Your task to perform on an android device: open app "Airtel Thanks" (install if not already installed) Image 0: 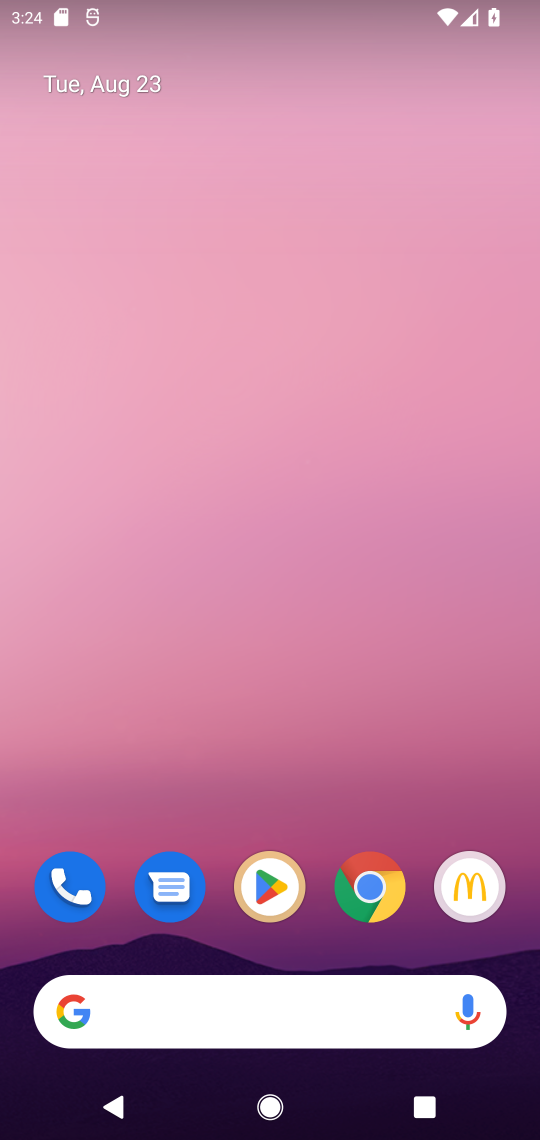
Step 0: click (268, 869)
Your task to perform on an android device: open app "Airtel Thanks" (install if not already installed) Image 1: 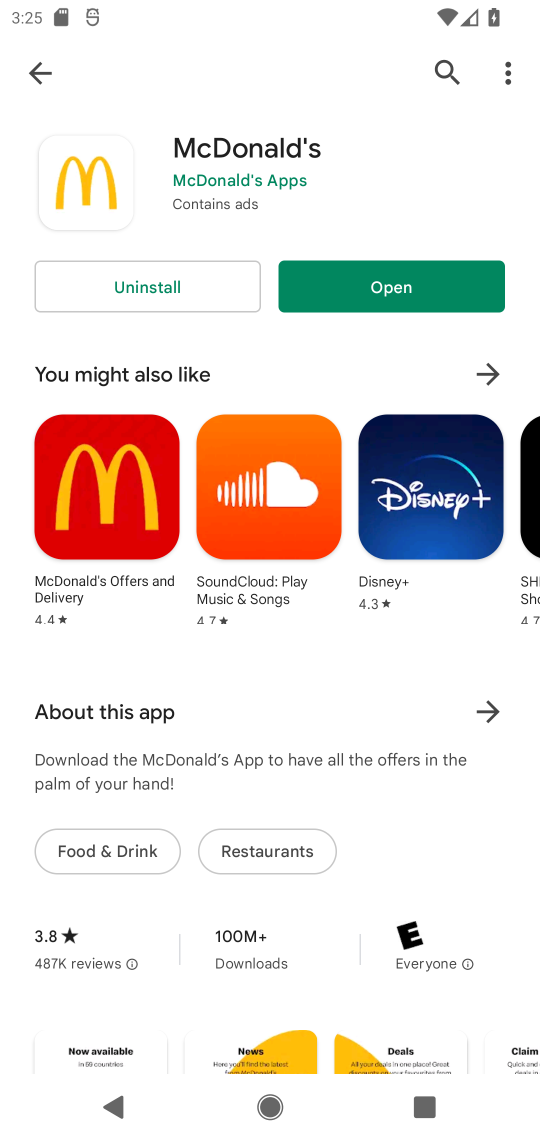
Step 1: click (38, 74)
Your task to perform on an android device: open app "Airtel Thanks" (install if not already installed) Image 2: 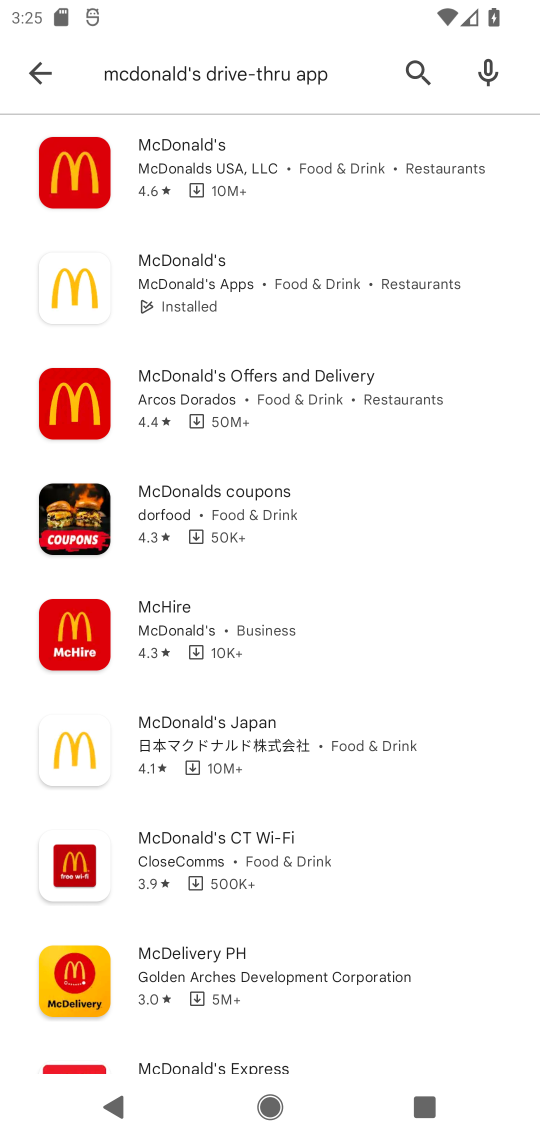
Step 2: click (40, 74)
Your task to perform on an android device: open app "Airtel Thanks" (install if not already installed) Image 3: 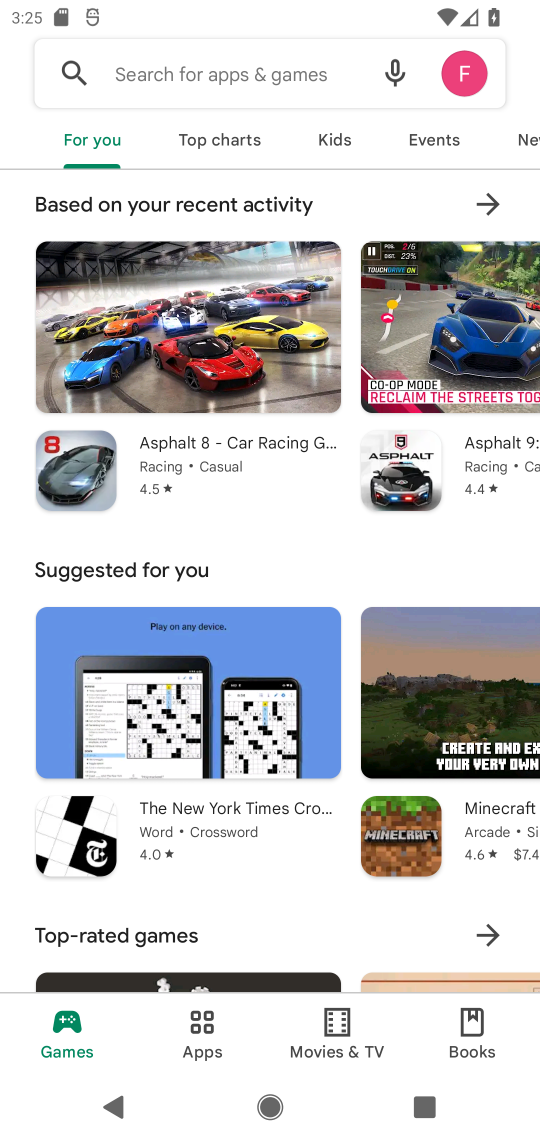
Step 3: click (195, 74)
Your task to perform on an android device: open app "Airtel Thanks" (install if not already installed) Image 4: 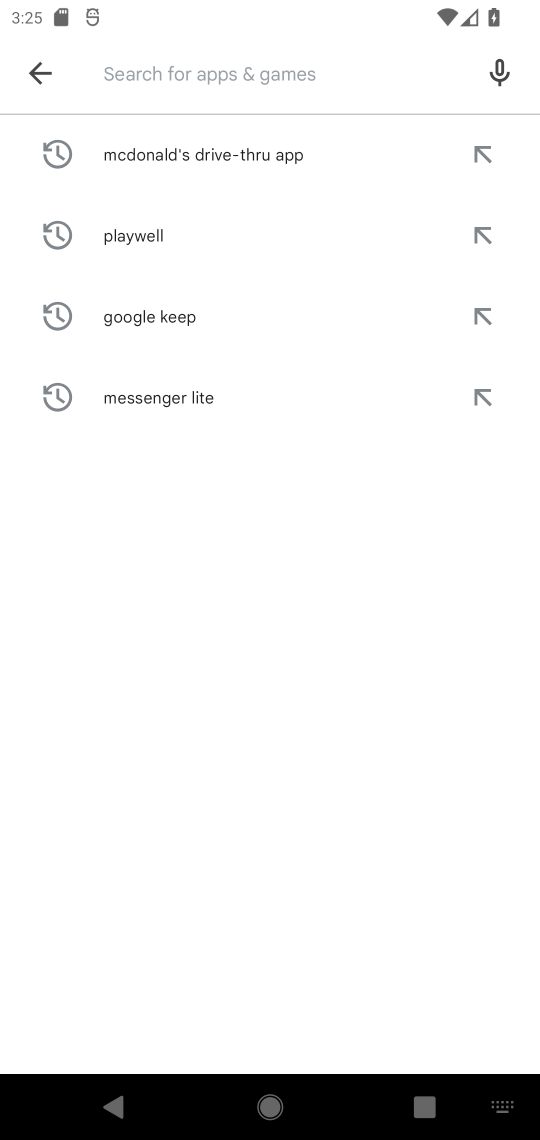
Step 4: type "Airtel Thanks""
Your task to perform on an android device: open app "Airtel Thanks" (install if not already installed) Image 5: 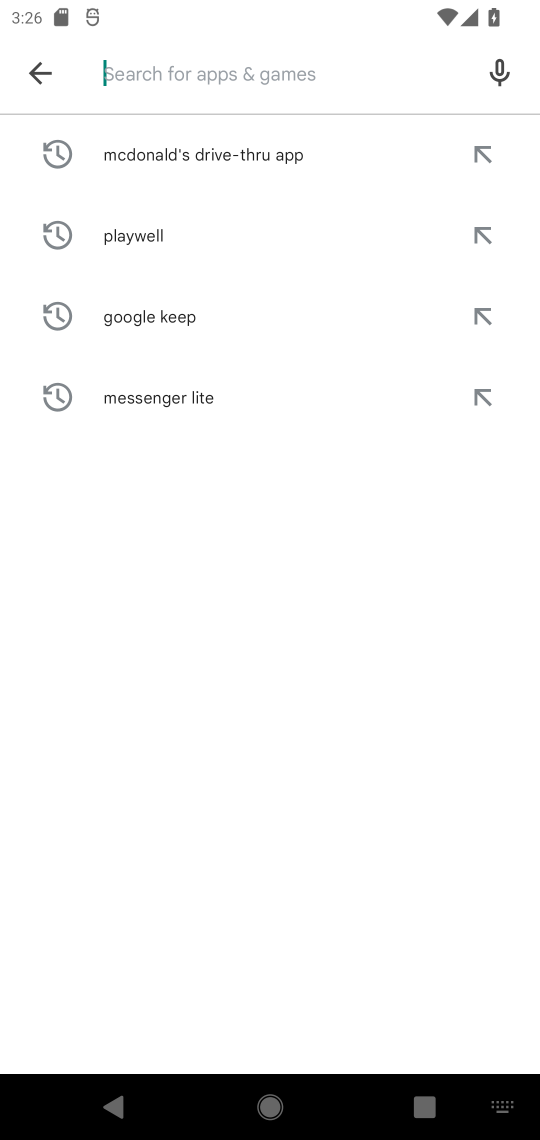
Step 5: type "Airtel Thanks"
Your task to perform on an android device: open app "Airtel Thanks" (install if not already installed) Image 6: 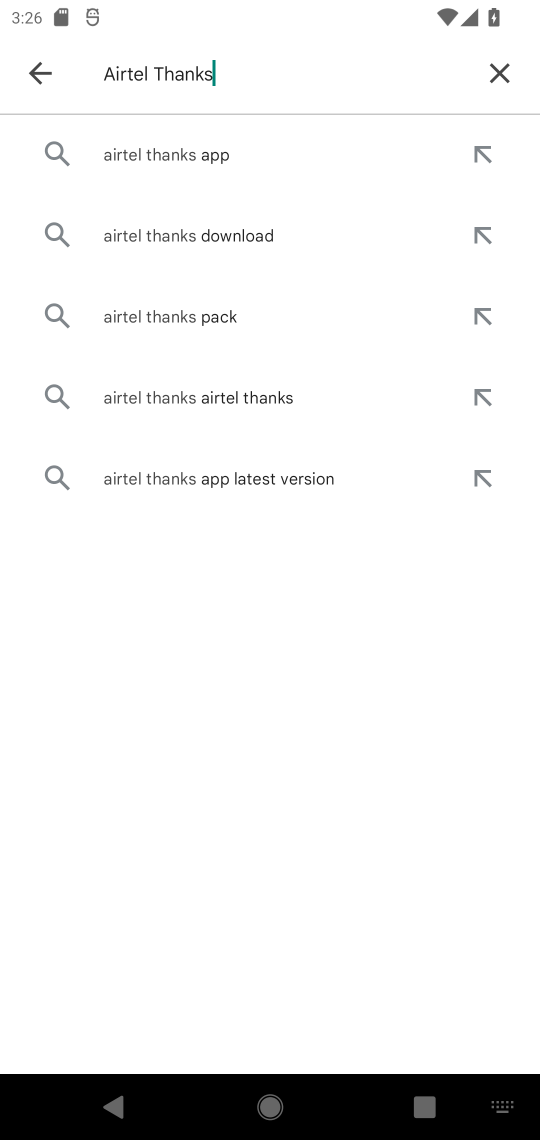
Step 6: click (186, 145)
Your task to perform on an android device: open app "Airtel Thanks" (install if not already installed) Image 7: 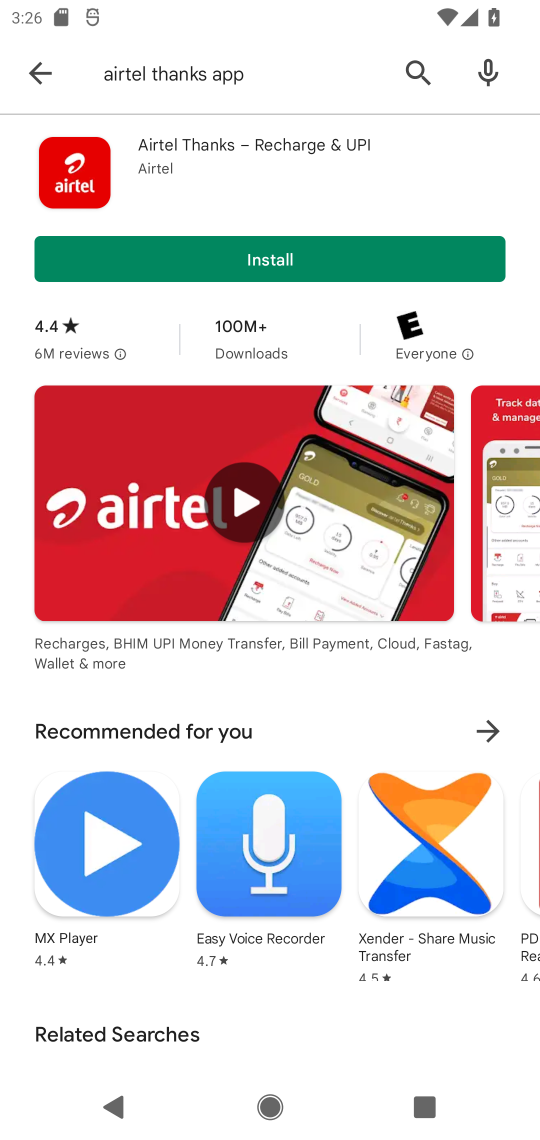
Step 7: click (269, 263)
Your task to perform on an android device: open app "Airtel Thanks" (install if not already installed) Image 8: 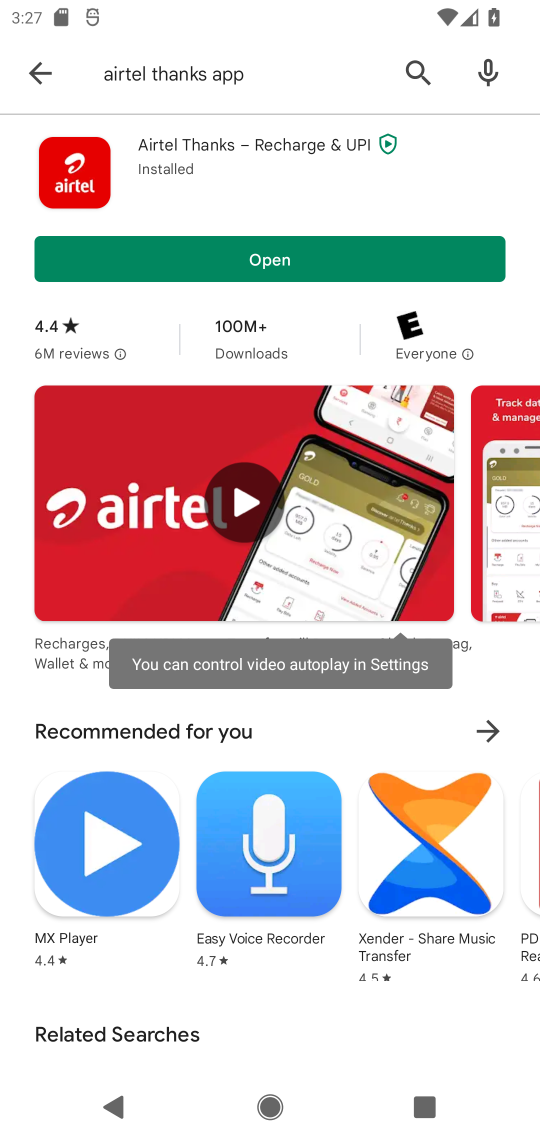
Step 8: click (284, 269)
Your task to perform on an android device: open app "Airtel Thanks" (install if not already installed) Image 9: 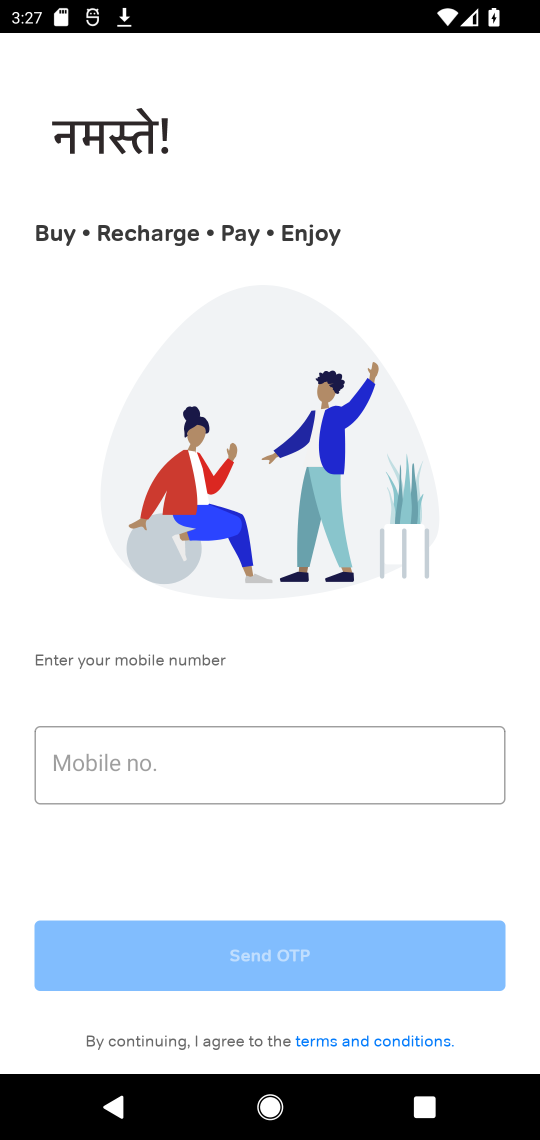
Step 9: task complete